Your task to perform on an android device: Add "bose soundlink mini" to the cart on walmart.com, then select checkout. Image 0: 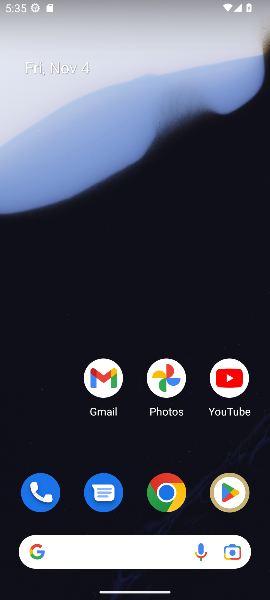
Step 0: drag from (138, 465) to (194, 104)
Your task to perform on an android device: Add "bose soundlink mini" to the cart on walmart.com, then select checkout. Image 1: 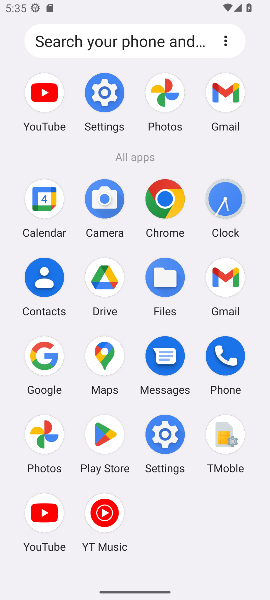
Step 1: click (162, 197)
Your task to perform on an android device: Add "bose soundlink mini" to the cart on walmart.com, then select checkout. Image 2: 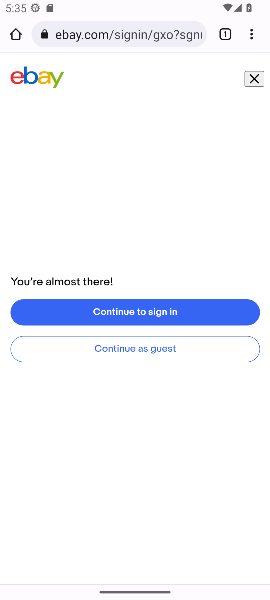
Step 2: click (120, 33)
Your task to perform on an android device: Add "bose soundlink mini" to the cart on walmart.com, then select checkout. Image 3: 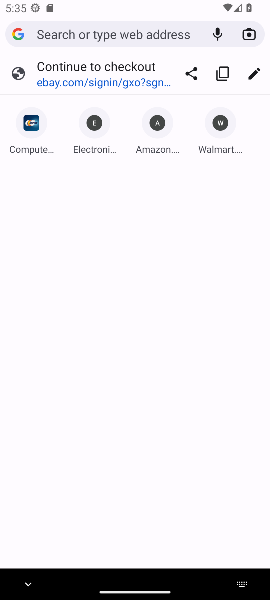
Step 3: type "walmart.com"
Your task to perform on an android device: Add "bose soundlink mini" to the cart on walmart.com, then select checkout. Image 4: 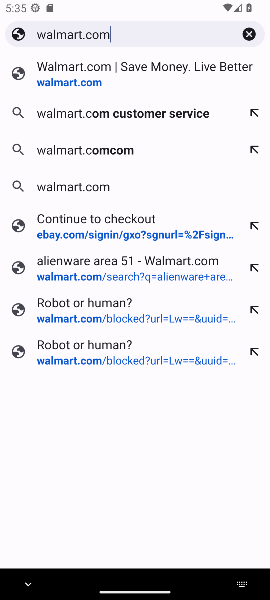
Step 4: press enter
Your task to perform on an android device: Add "bose soundlink mini" to the cart on walmart.com, then select checkout. Image 5: 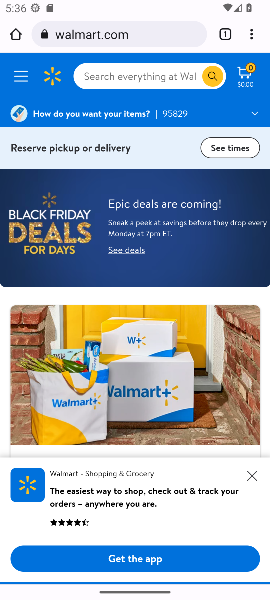
Step 5: click (150, 74)
Your task to perform on an android device: Add "bose soundlink mini" to the cart on walmart.com, then select checkout. Image 6: 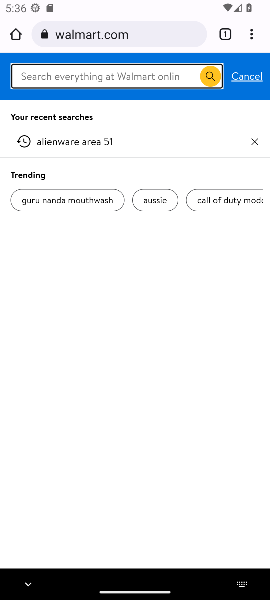
Step 6: type "bose soundlink  mini"
Your task to perform on an android device: Add "bose soundlink mini" to the cart on walmart.com, then select checkout. Image 7: 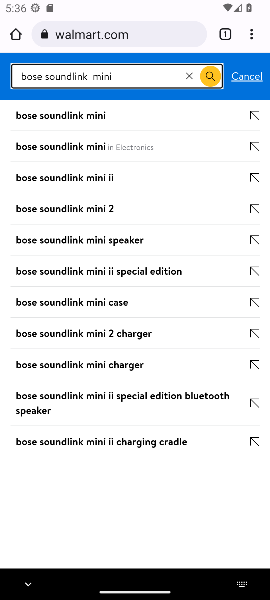
Step 7: press enter
Your task to perform on an android device: Add "bose soundlink mini" to the cart on walmart.com, then select checkout. Image 8: 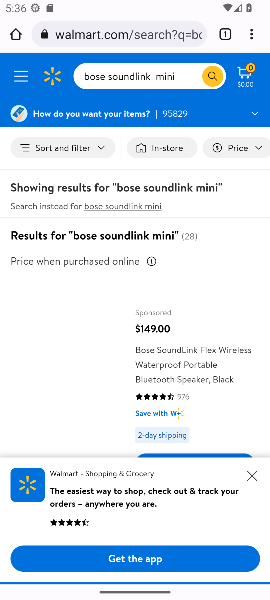
Step 8: task complete